Your task to perform on an android device: Show me productivity apps on the Play Store Image 0: 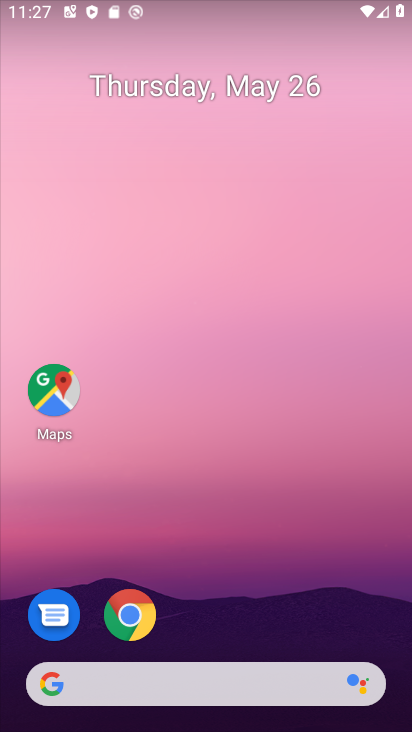
Step 0: drag from (263, 703) to (351, 102)
Your task to perform on an android device: Show me productivity apps on the Play Store Image 1: 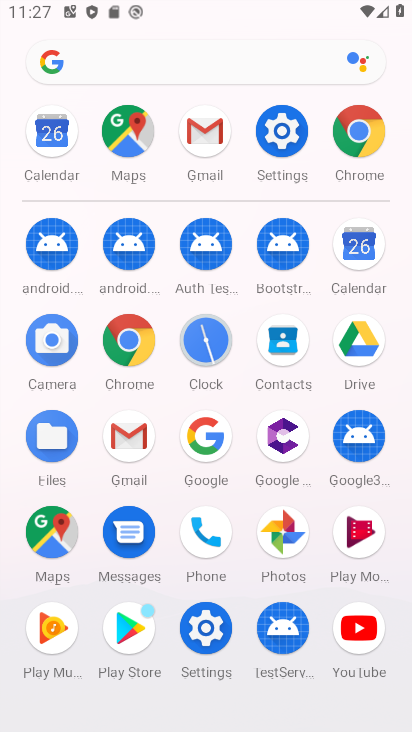
Step 1: click (133, 633)
Your task to perform on an android device: Show me productivity apps on the Play Store Image 2: 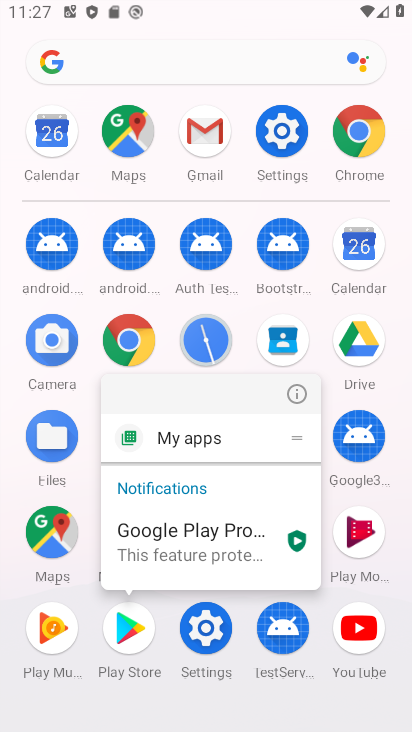
Step 2: click (133, 633)
Your task to perform on an android device: Show me productivity apps on the Play Store Image 3: 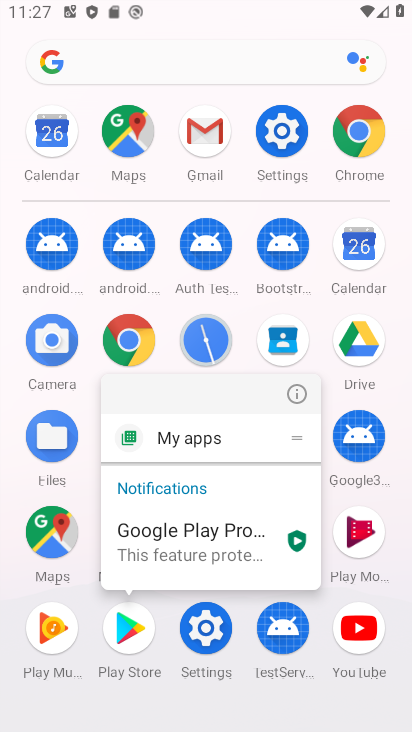
Step 3: click (133, 633)
Your task to perform on an android device: Show me productivity apps on the Play Store Image 4: 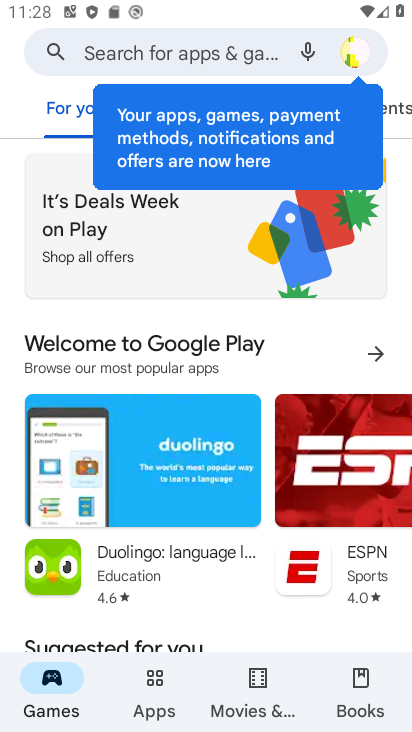
Step 4: click (163, 688)
Your task to perform on an android device: Show me productivity apps on the Play Store Image 5: 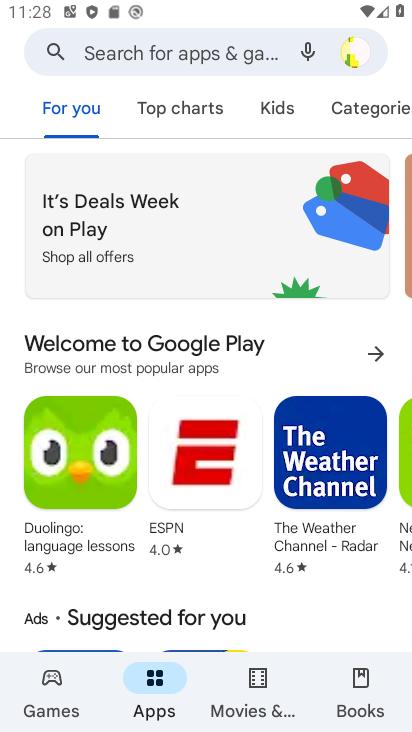
Step 5: drag from (188, 608) to (253, 331)
Your task to perform on an android device: Show me productivity apps on the Play Store Image 6: 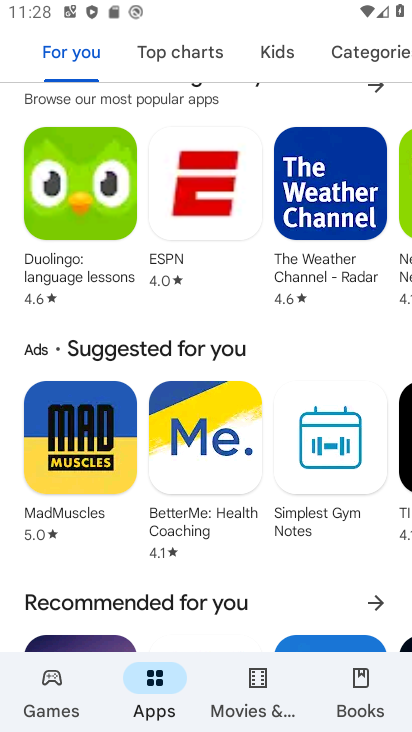
Step 6: drag from (191, 626) to (222, 319)
Your task to perform on an android device: Show me productivity apps on the Play Store Image 7: 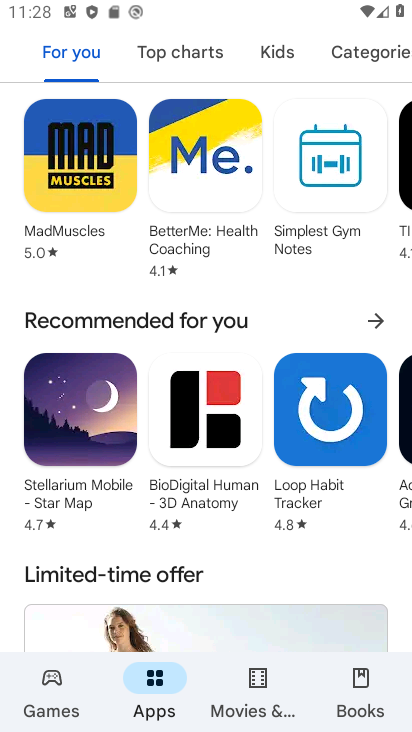
Step 7: drag from (183, 671) to (230, 385)
Your task to perform on an android device: Show me productivity apps on the Play Store Image 8: 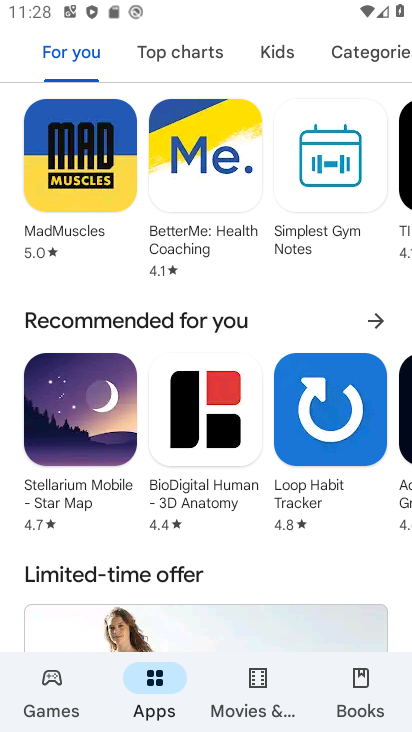
Step 8: drag from (283, 574) to (318, 211)
Your task to perform on an android device: Show me productivity apps on the Play Store Image 9: 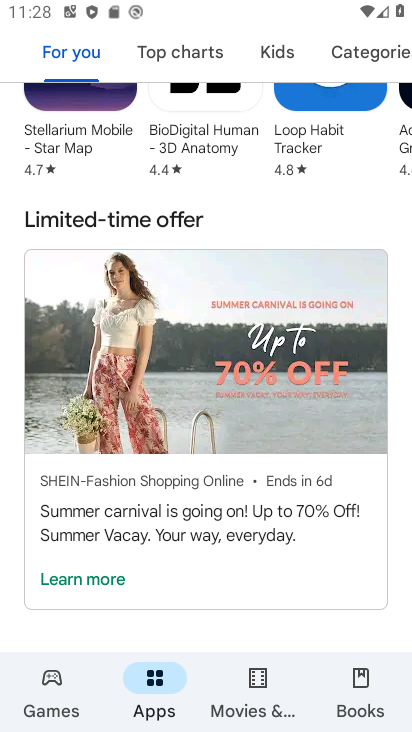
Step 9: drag from (254, 426) to (266, 206)
Your task to perform on an android device: Show me productivity apps on the Play Store Image 10: 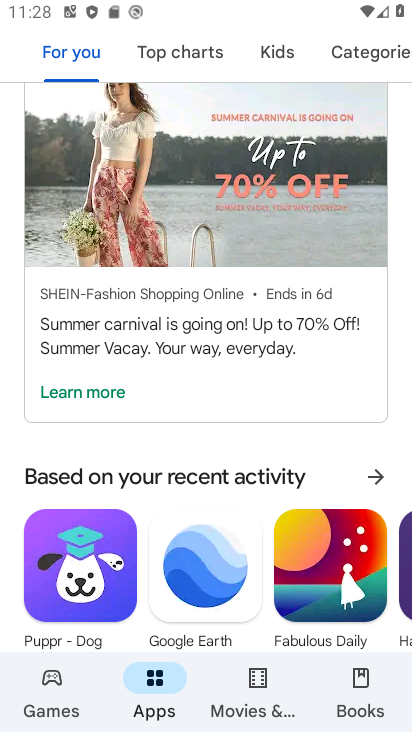
Step 10: drag from (247, 545) to (305, 129)
Your task to perform on an android device: Show me productivity apps on the Play Store Image 11: 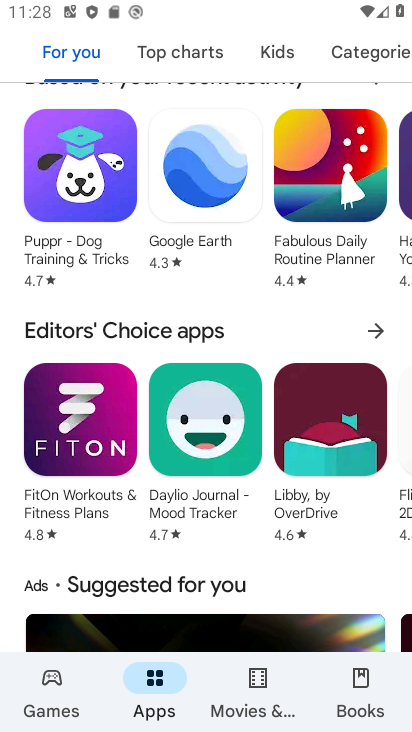
Step 11: drag from (282, 607) to (330, 292)
Your task to perform on an android device: Show me productivity apps on the Play Store Image 12: 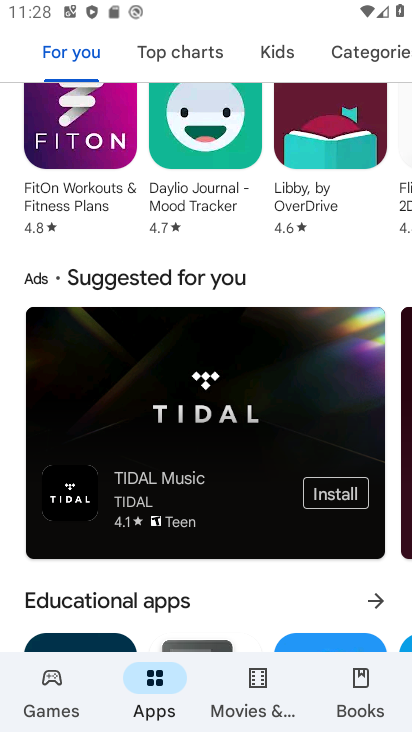
Step 12: drag from (304, 604) to (296, 277)
Your task to perform on an android device: Show me productivity apps on the Play Store Image 13: 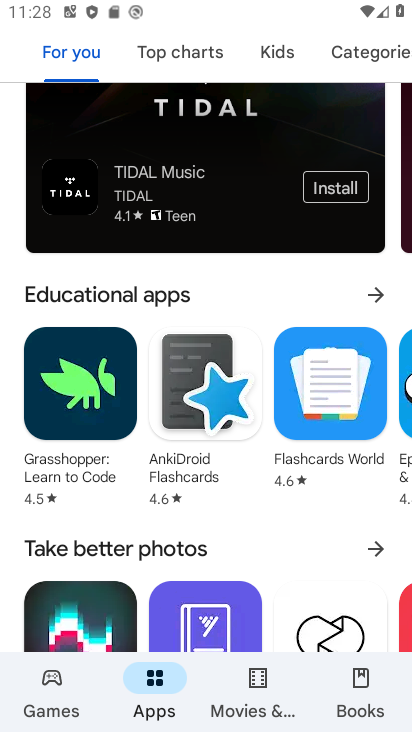
Step 13: drag from (274, 610) to (294, 392)
Your task to perform on an android device: Show me productivity apps on the Play Store Image 14: 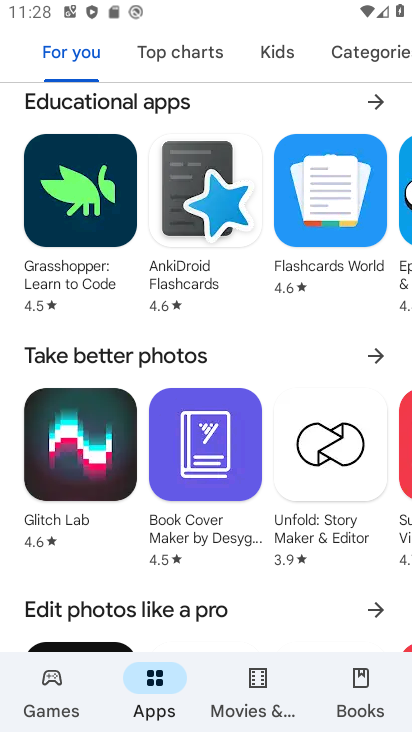
Step 14: drag from (208, 637) to (316, 313)
Your task to perform on an android device: Show me productivity apps on the Play Store Image 15: 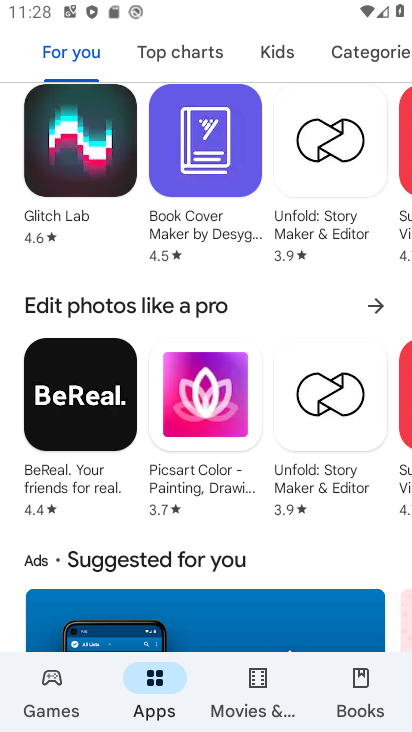
Step 15: drag from (213, 598) to (263, 195)
Your task to perform on an android device: Show me productivity apps on the Play Store Image 16: 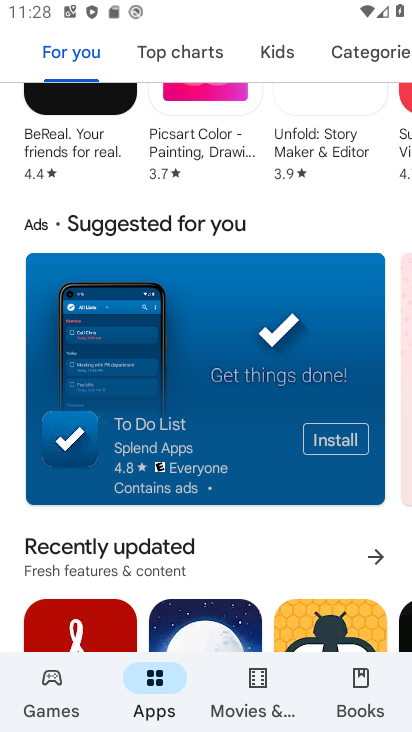
Step 16: drag from (276, 572) to (276, 195)
Your task to perform on an android device: Show me productivity apps on the Play Store Image 17: 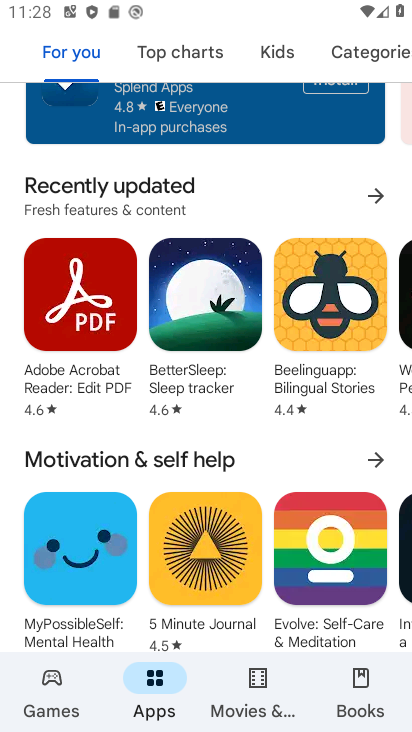
Step 17: drag from (303, 668) to (345, 263)
Your task to perform on an android device: Show me productivity apps on the Play Store Image 18: 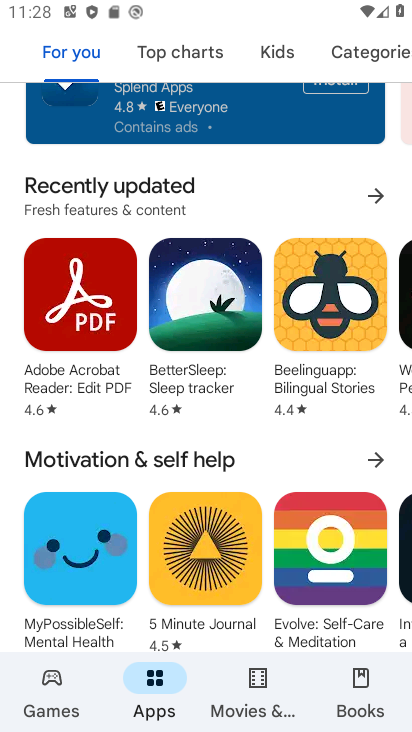
Step 18: drag from (308, 412) to (329, 138)
Your task to perform on an android device: Show me productivity apps on the Play Store Image 19: 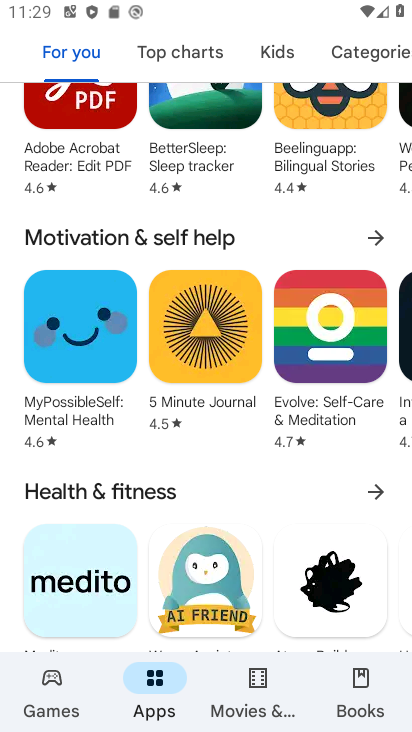
Step 19: drag from (202, 620) to (190, 138)
Your task to perform on an android device: Show me productivity apps on the Play Store Image 20: 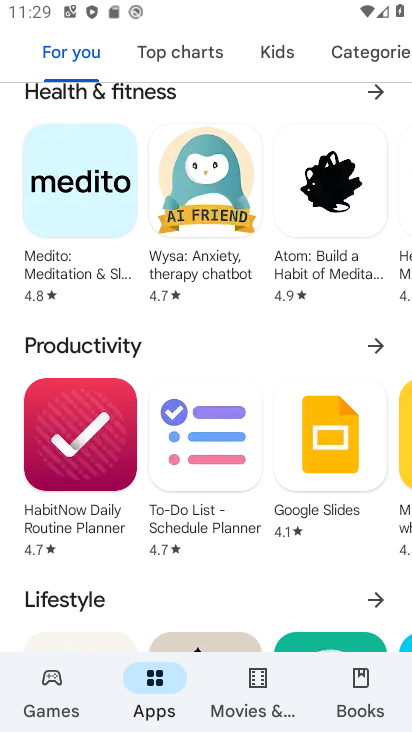
Step 20: click (377, 343)
Your task to perform on an android device: Show me productivity apps on the Play Store Image 21: 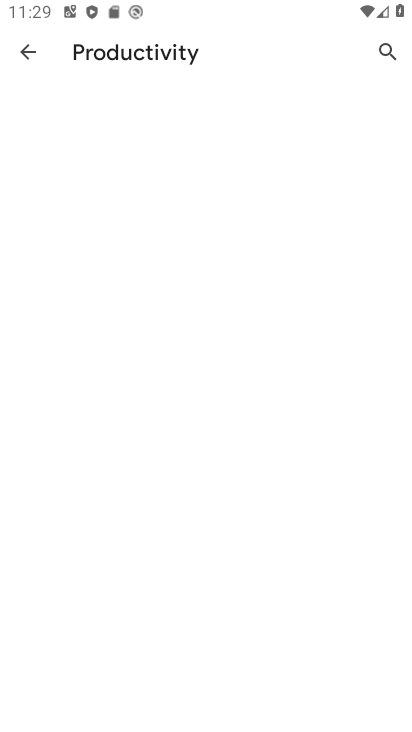
Step 21: task complete